Your task to perform on an android device: Open settings Image 0: 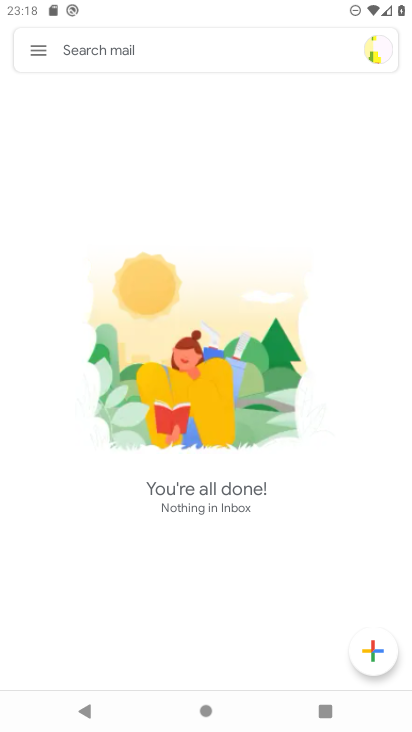
Step 0: press home button
Your task to perform on an android device: Open settings Image 1: 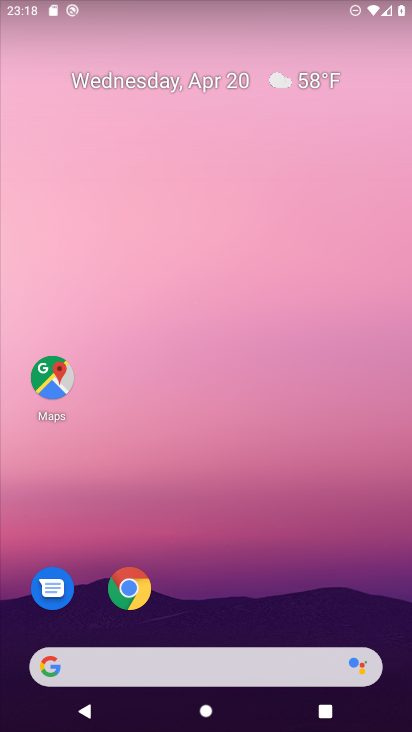
Step 1: drag from (233, 719) to (204, 95)
Your task to perform on an android device: Open settings Image 2: 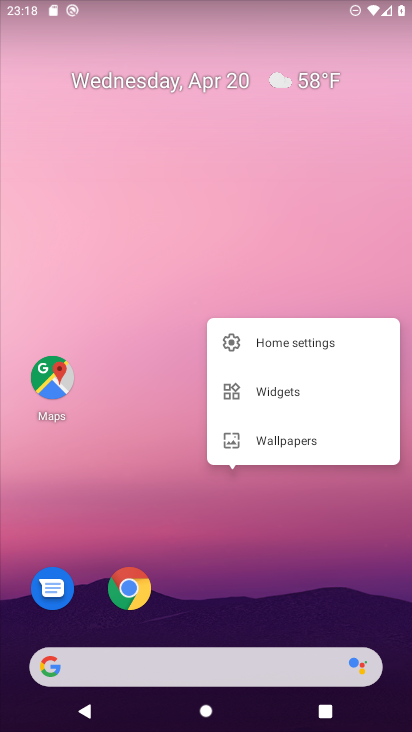
Step 2: click (188, 280)
Your task to perform on an android device: Open settings Image 3: 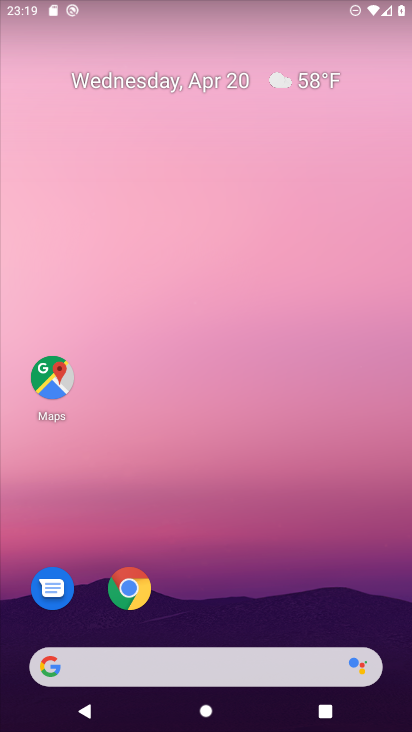
Step 3: drag from (217, 725) to (217, 175)
Your task to perform on an android device: Open settings Image 4: 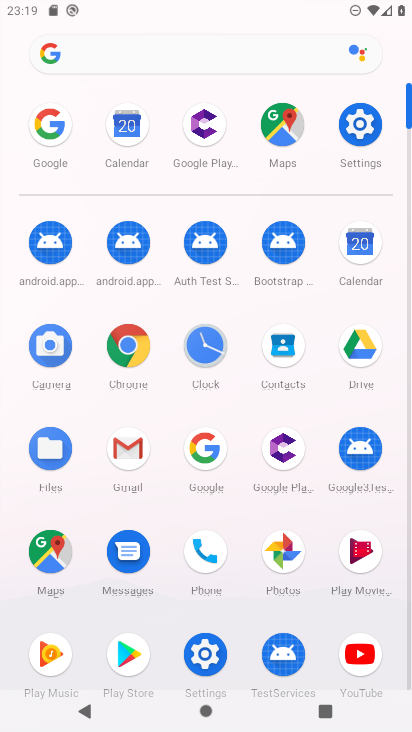
Step 4: click (359, 121)
Your task to perform on an android device: Open settings Image 5: 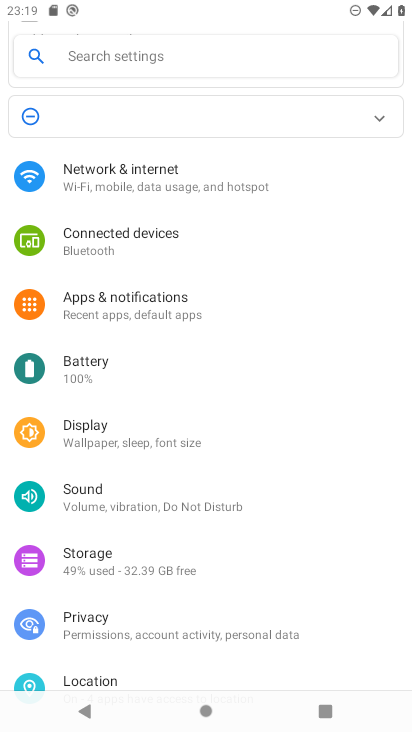
Step 5: task complete